Your task to perform on an android device: Go to eBay Image 0: 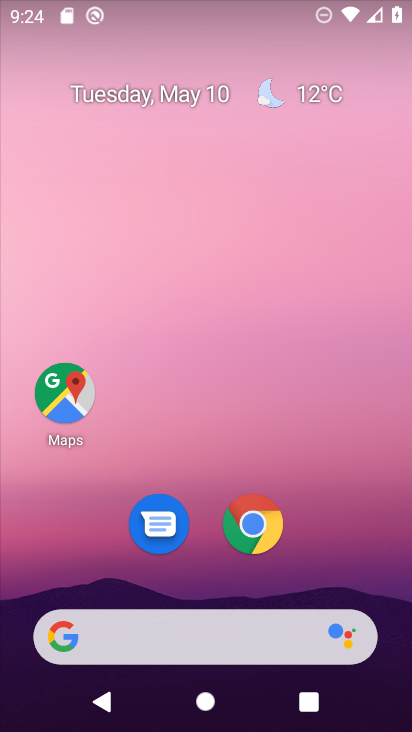
Step 0: click (244, 638)
Your task to perform on an android device: Go to eBay Image 1: 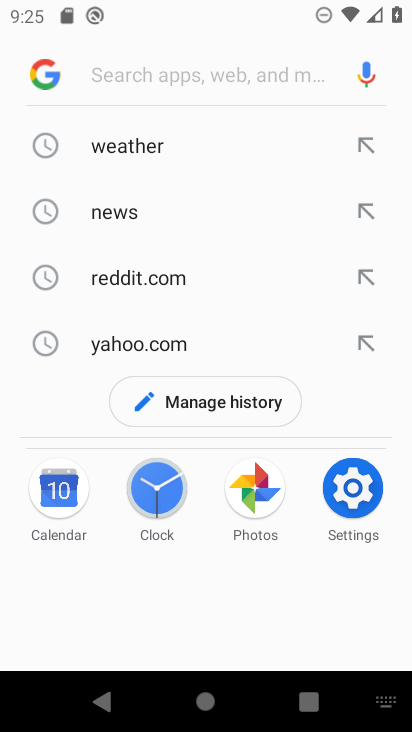
Step 1: type "ebay"
Your task to perform on an android device: Go to eBay Image 2: 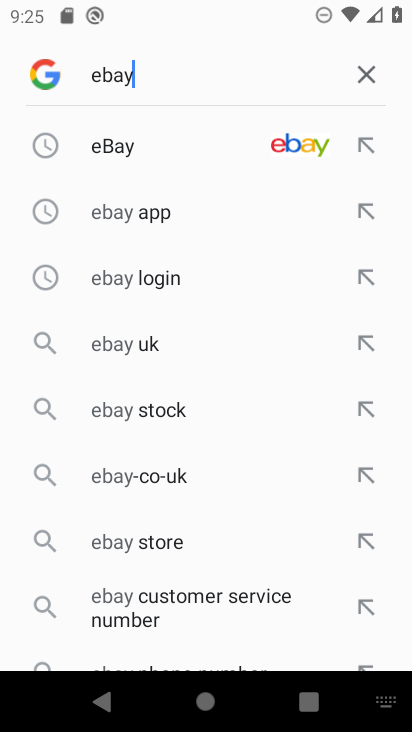
Step 2: click (119, 141)
Your task to perform on an android device: Go to eBay Image 3: 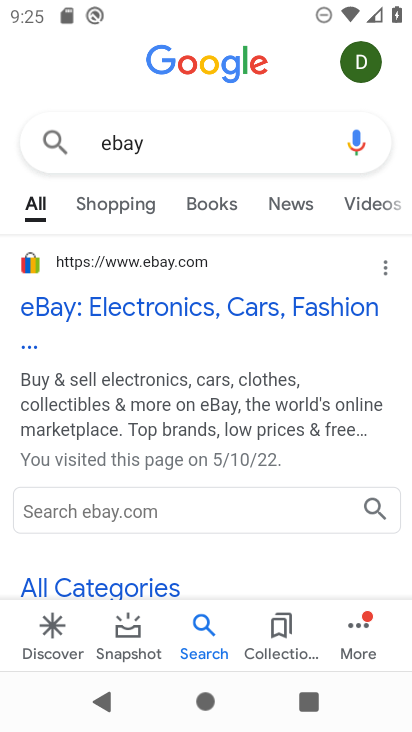
Step 3: click (154, 295)
Your task to perform on an android device: Go to eBay Image 4: 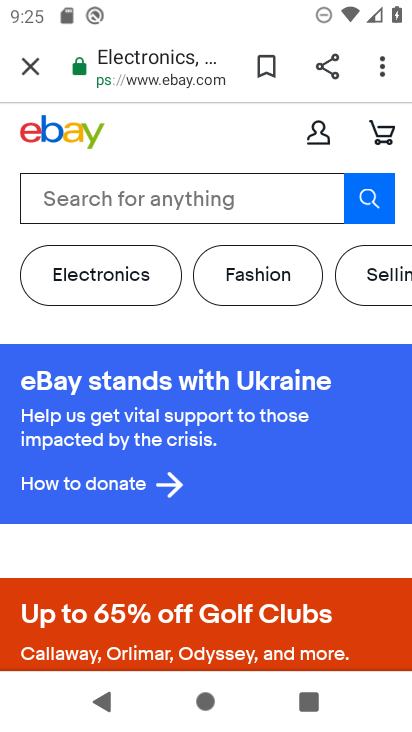
Step 4: task complete